Your task to perform on an android device: open app "The Home Depot" (install if not already installed) and go to login screen Image 0: 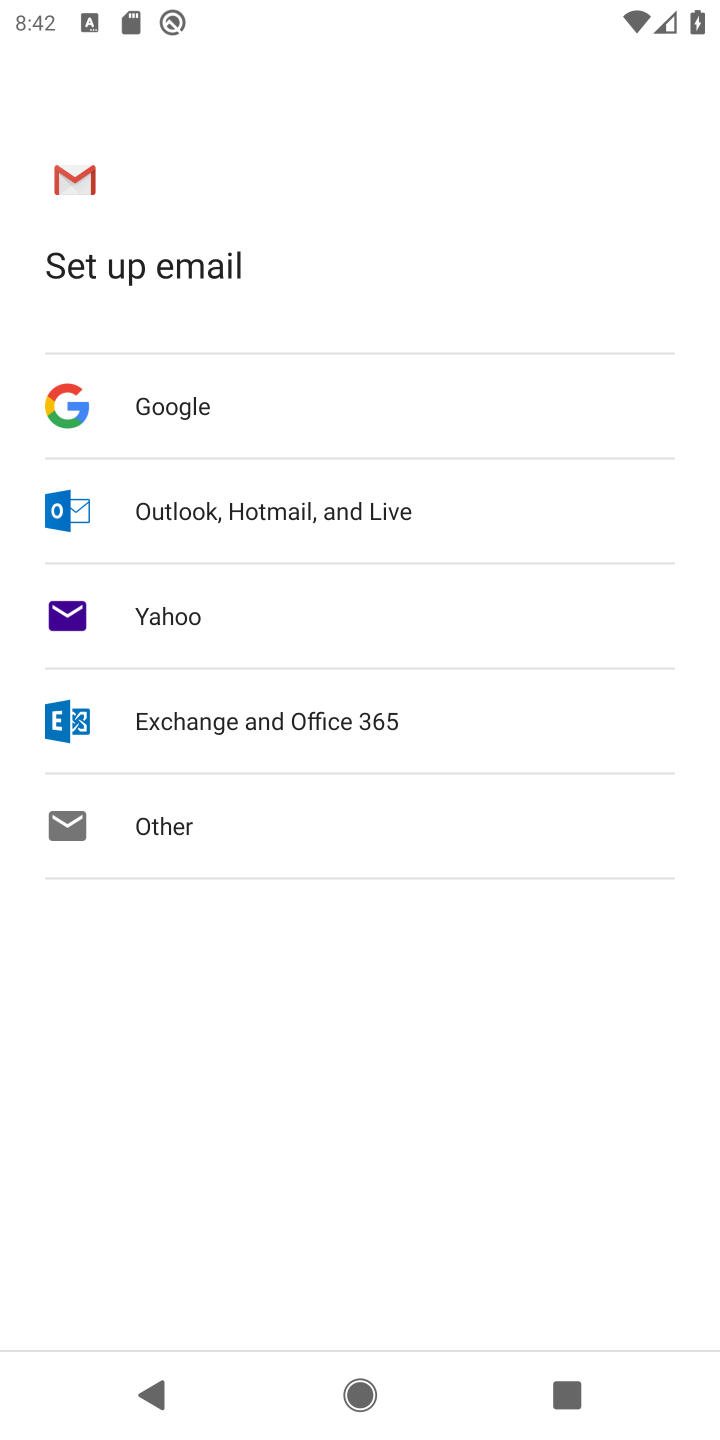
Step 0: click (187, 1393)
Your task to perform on an android device: open app "The Home Depot" (install if not already installed) and go to login screen Image 1: 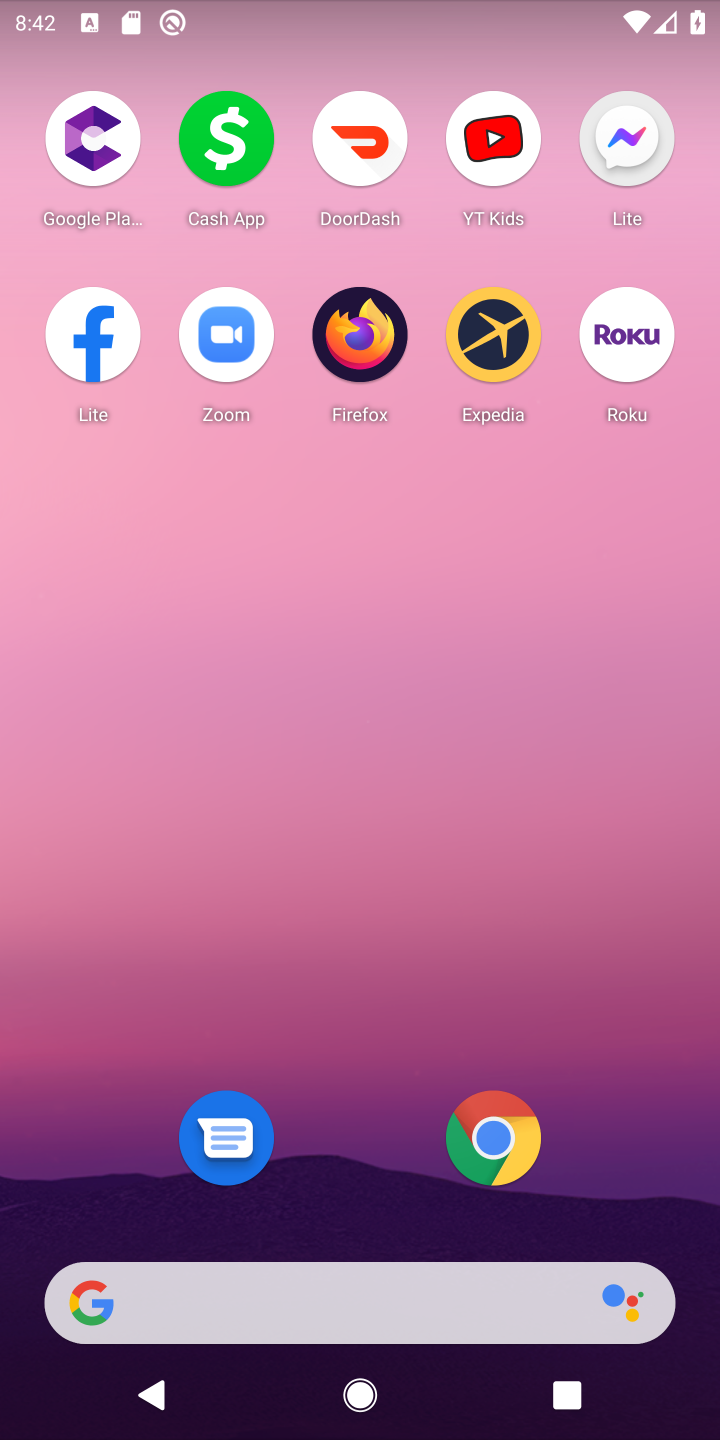
Step 1: drag from (367, 825) to (372, 455)
Your task to perform on an android device: open app "The Home Depot" (install if not already installed) and go to login screen Image 2: 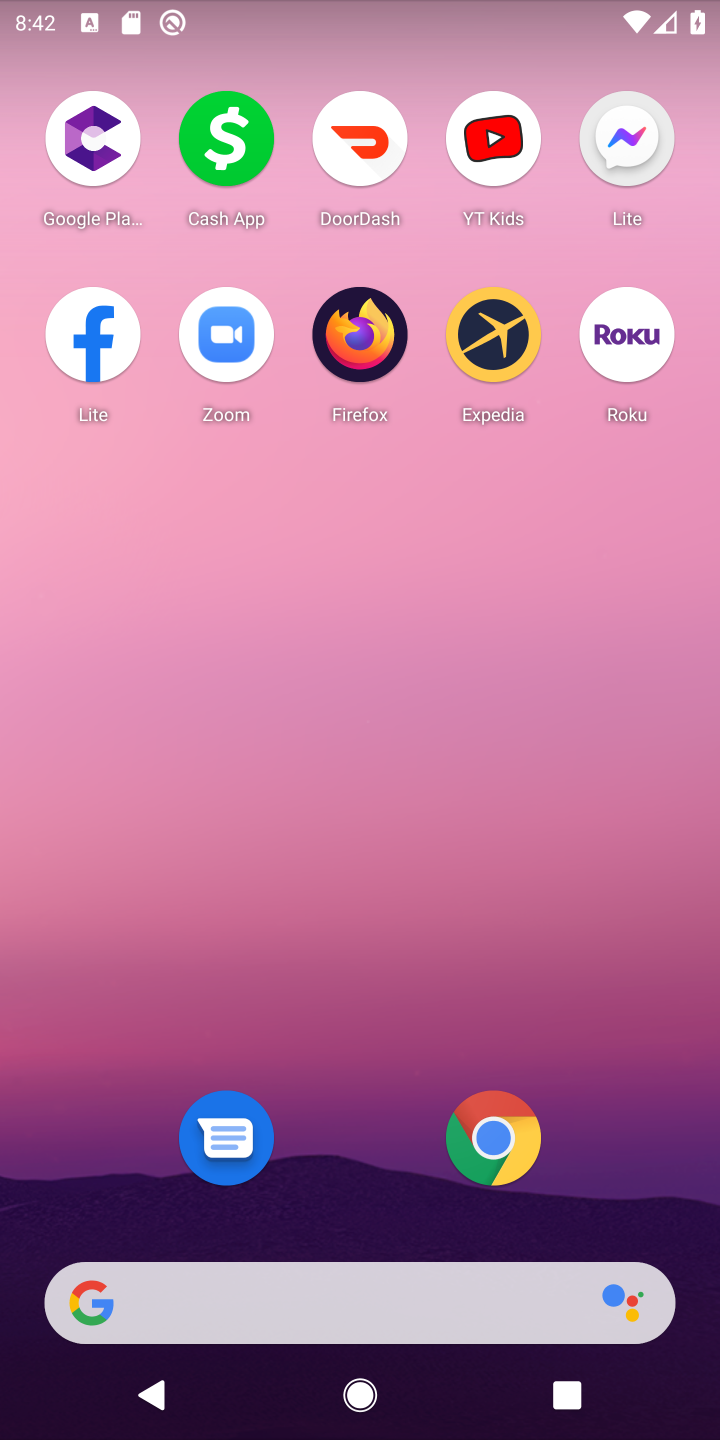
Step 2: drag from (340, 1266) to (356, 538)
Your task to perform on an android device: open app "The Home Depot" (install if not already installed) and go to login screen Image 3: 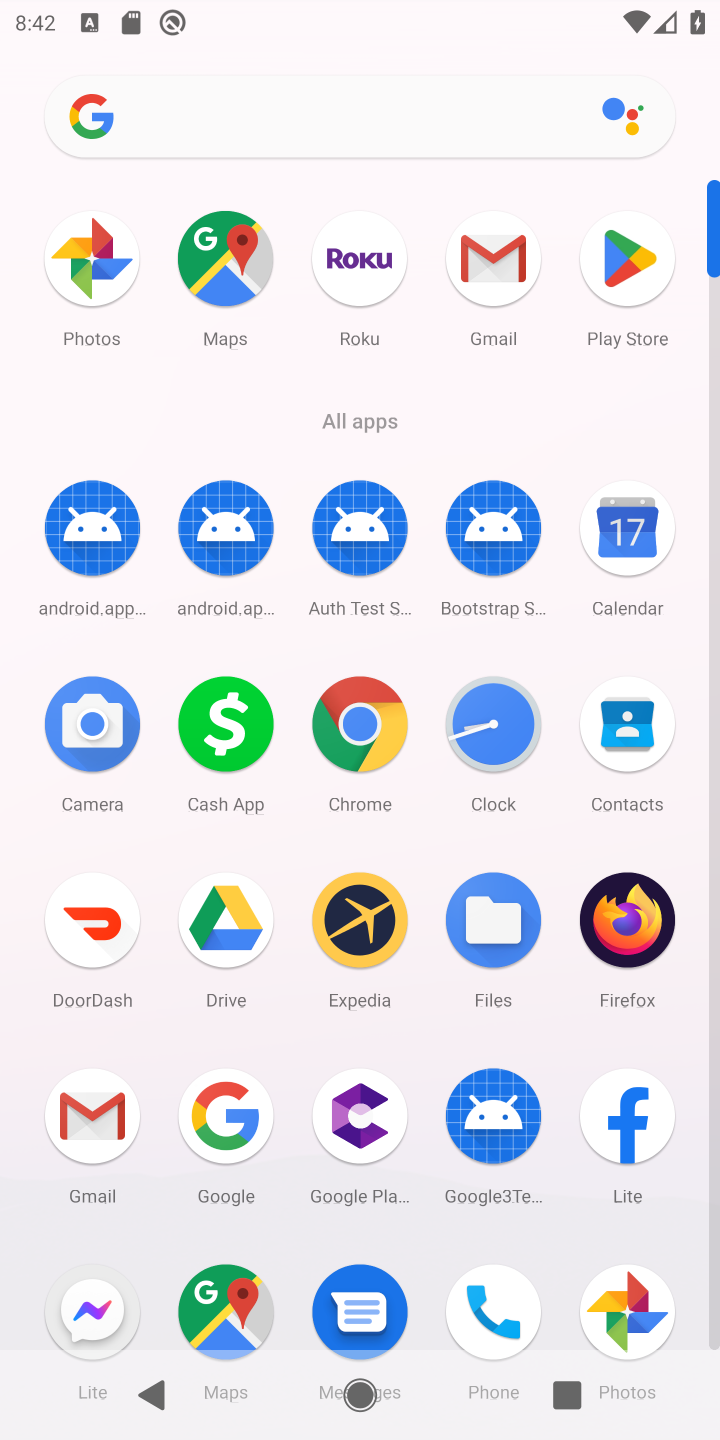
Step 3: click (616, 290)
Your task to perform on an android device: open app "The Home Depot" (install if not already installed) and go to login screen Image 4: 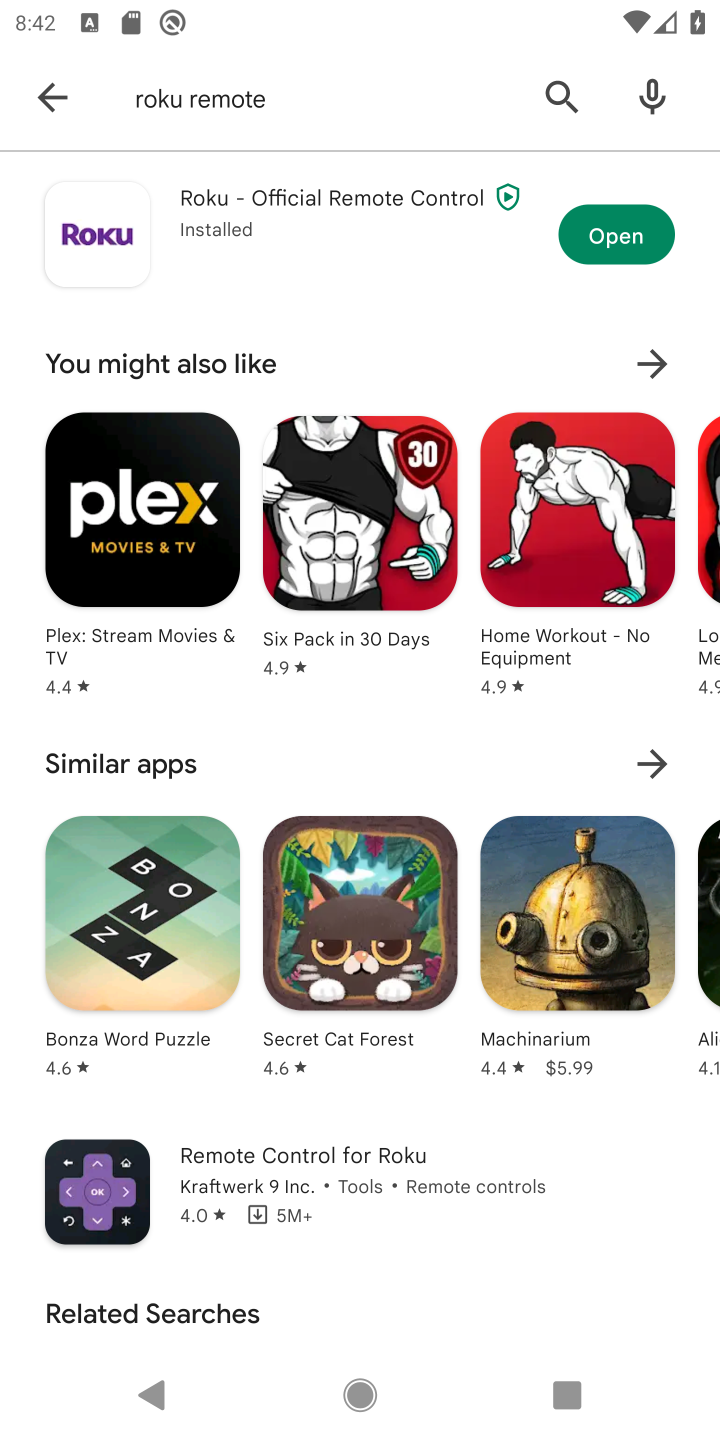
Step 4: click (39, 85)
Your task to perform on an android device: open app "The Home Depot" (install if not already installed) and go to login screen Image 5: 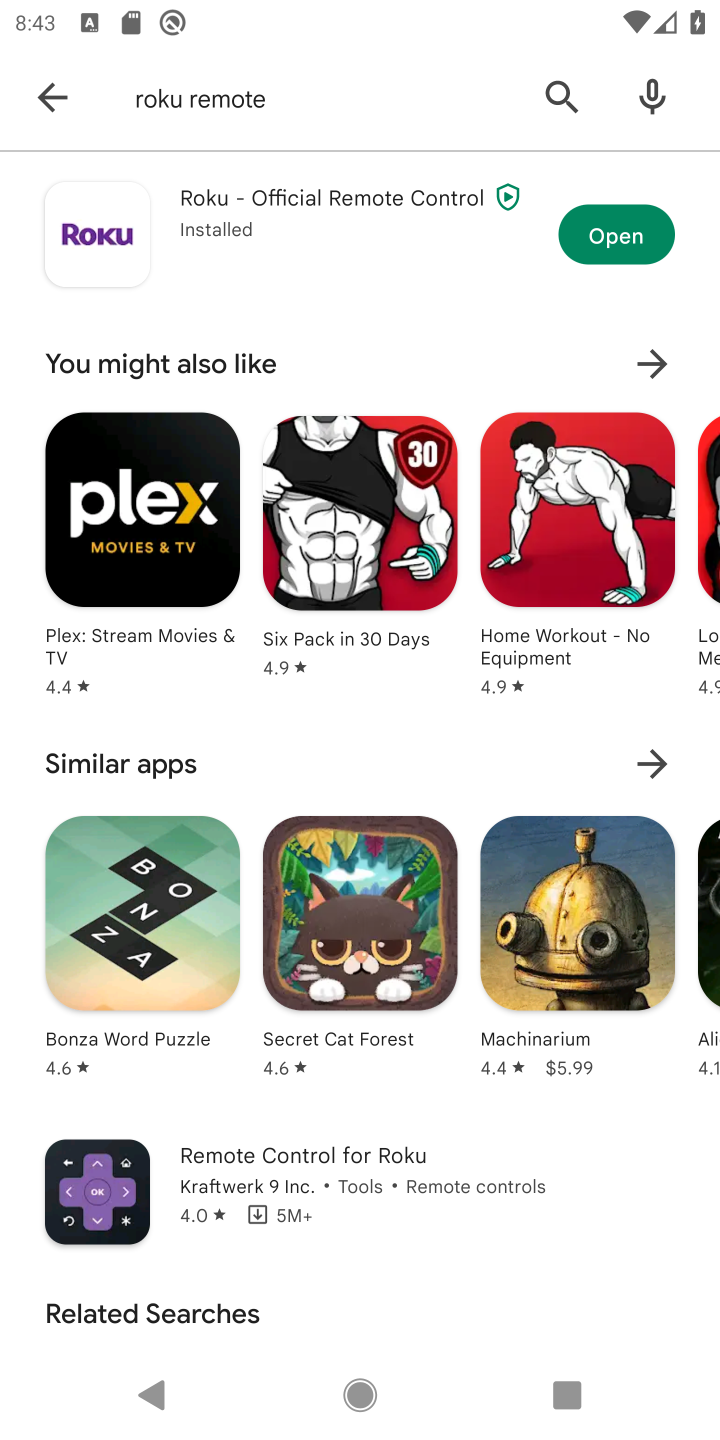
Step 5: click (62, 82)
Your task to perform on an android device: open app "The Home Depot" (install if not already installed) and go to login screen Image 6: 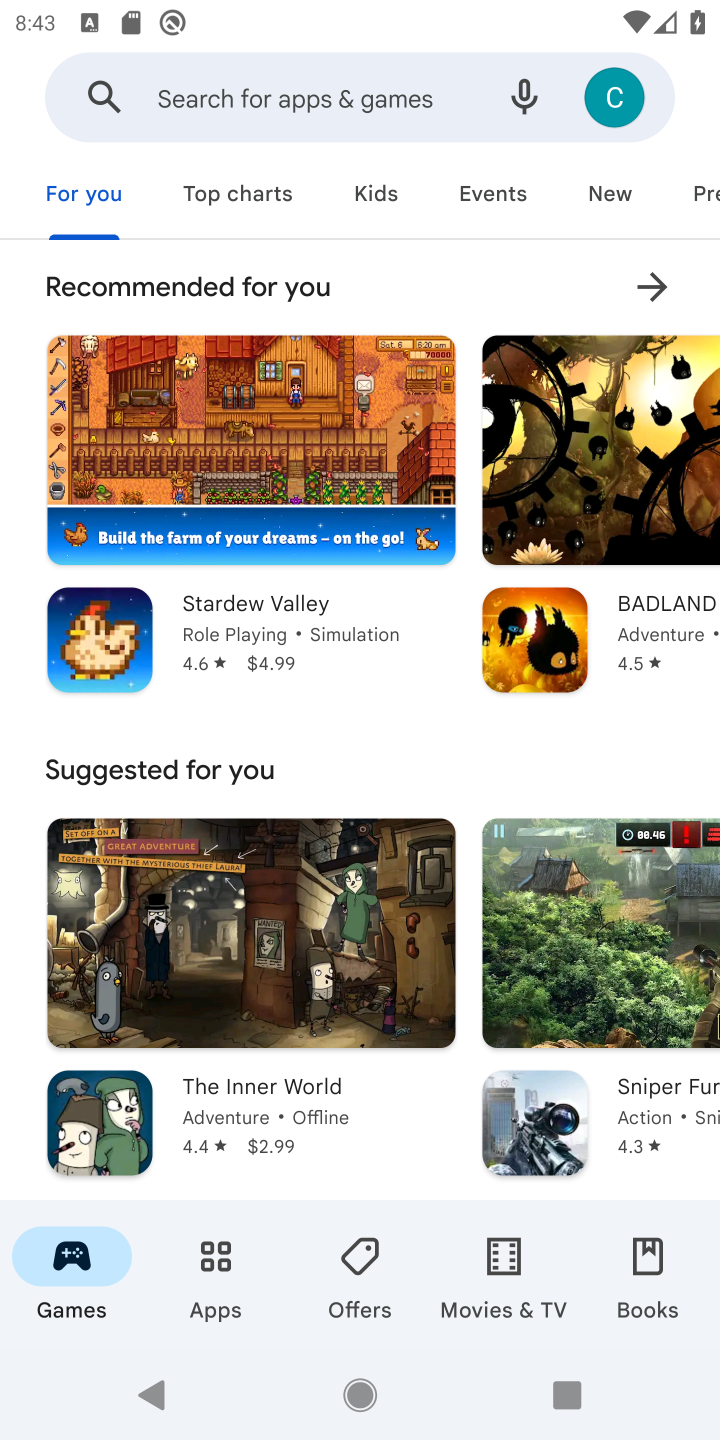
Step 6: click (383, 86)
Your task to perform on an android device: open app "The Home Depot" (install if not already installed) and go to login screen Image 7: 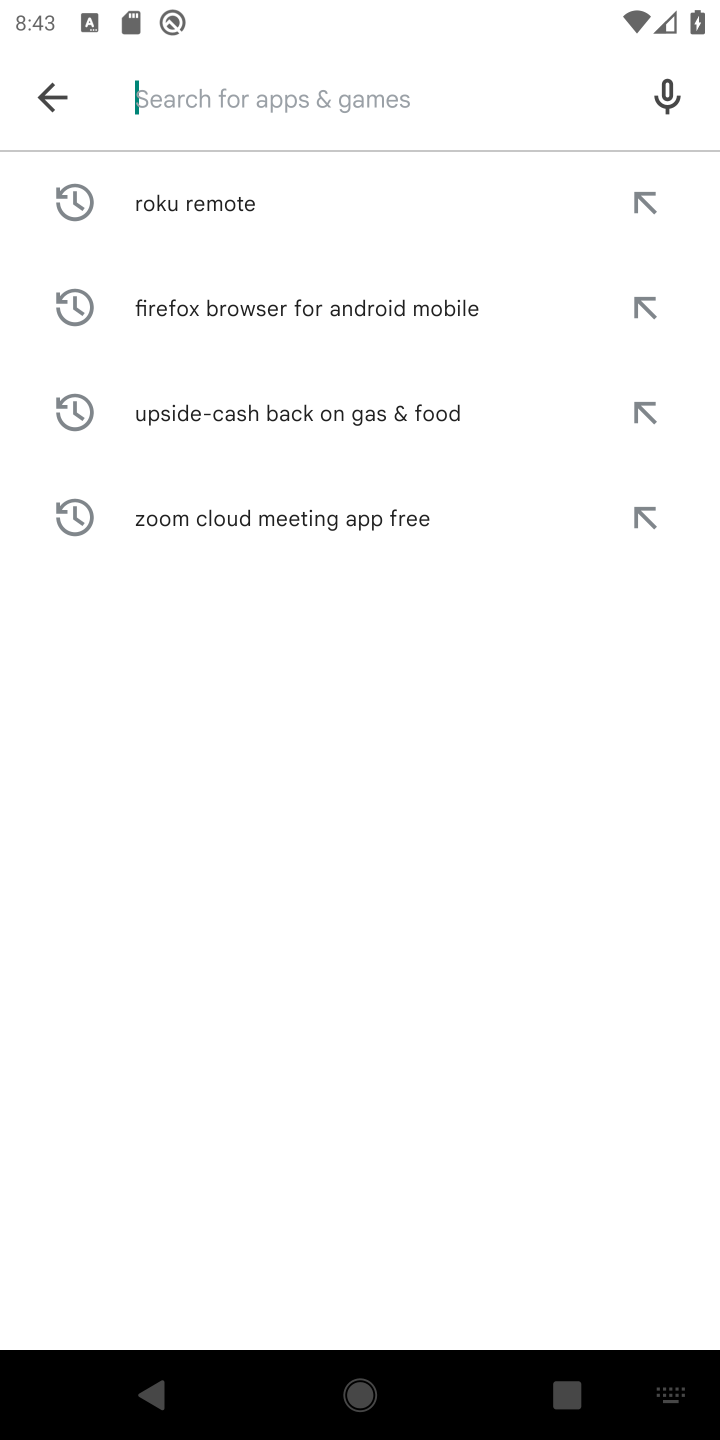
Step 7: type "The Home Depot "
Your task to perform on an android device: open app "The Home Depot" (install if not already installed) and go to login screen Image 8: 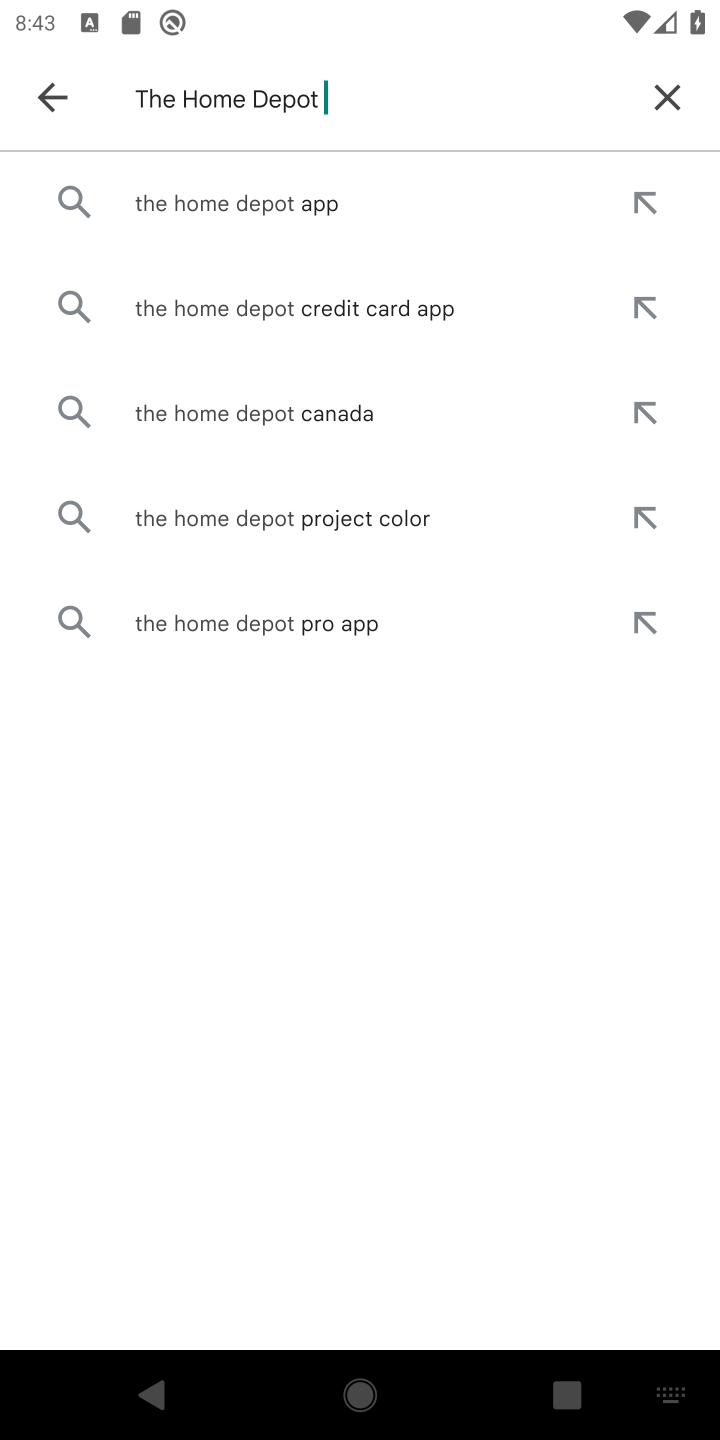
Step 8: click (253, 235)
Your task to perform on an android device: open app "The Home Depot" (install if not already installed) and go to login screen Image 9: 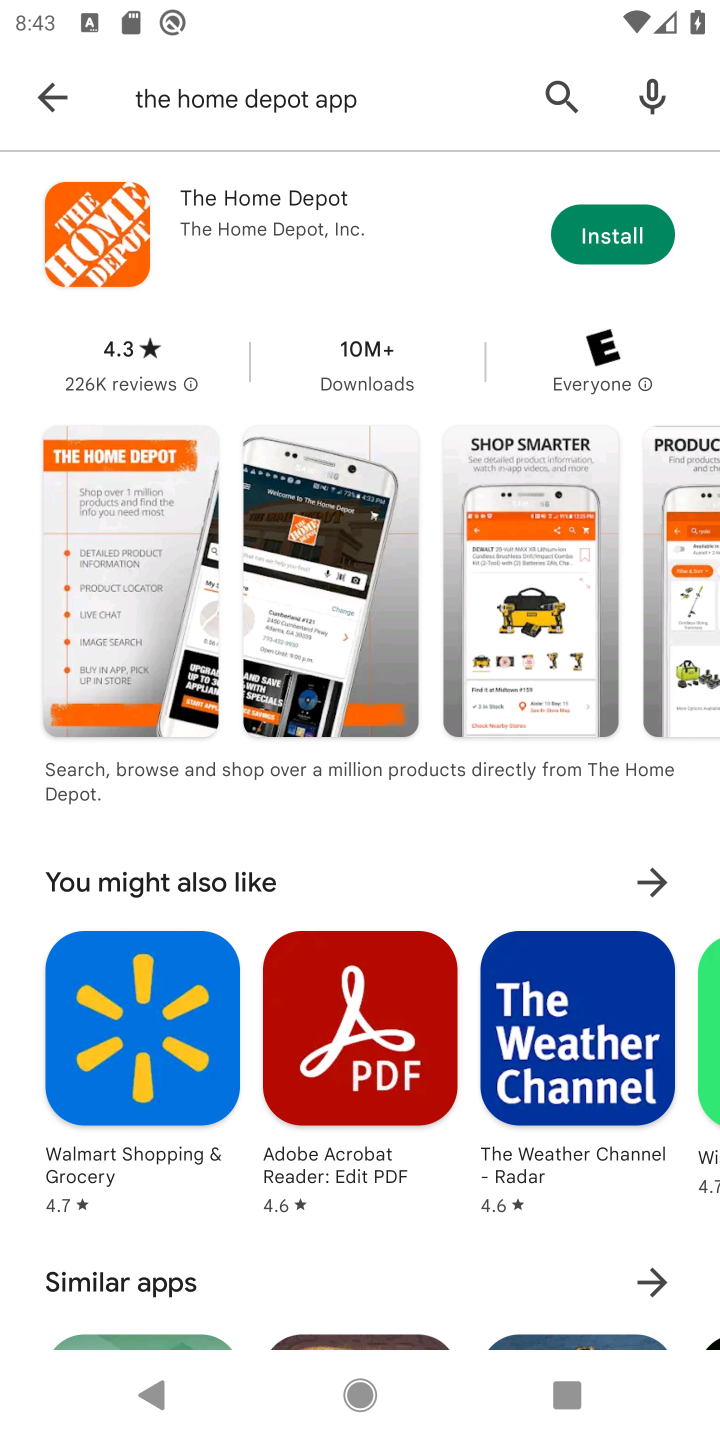
Step 9: click (586, 233)
Your task to perform on an android device: open app "The Home Depot" (install if not already installed) and go to login screen Image 10: 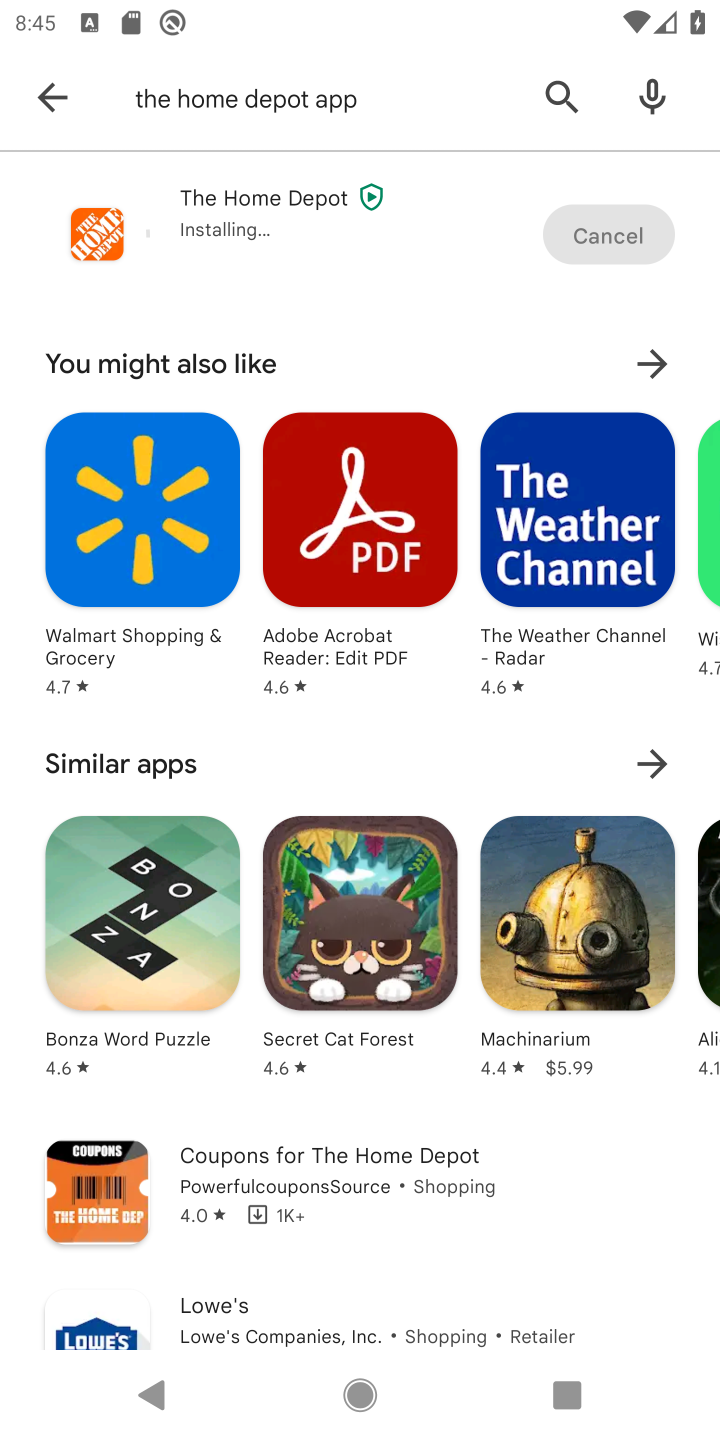
Step 10: task complete